Your task to perform on an android device: allow cookies in the chrome app Image 0: 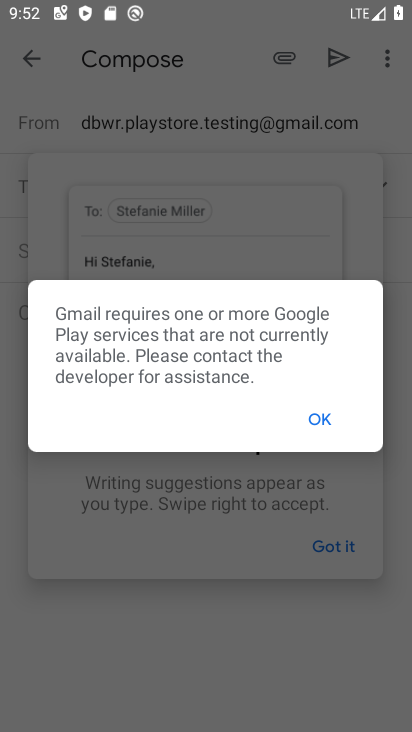
Step 0: press home button
Your task to perform on an android device: allow cookies in the chrome app Image 1: 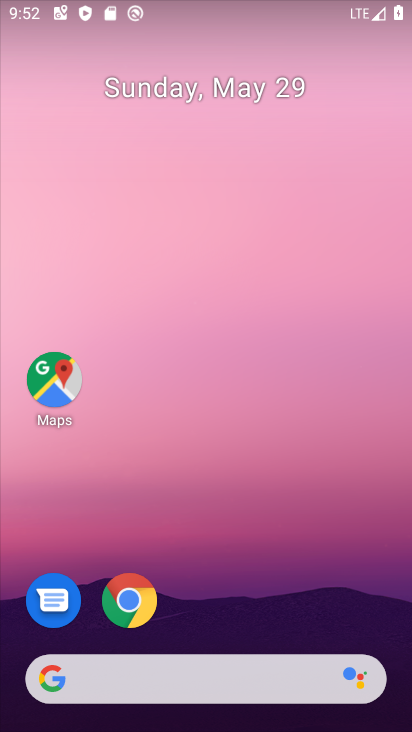
Step 1: drag from (286, 627) to (347, 123)
Your task to perform on an android device: allow cookies in the chrome app Image 2: 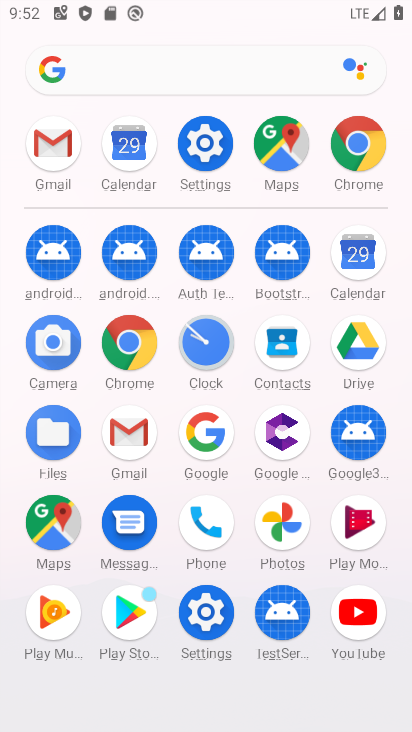
Step 2: click (131, 331)
Your task to perform on an android device: allow cookies in the chrome app Image 3: 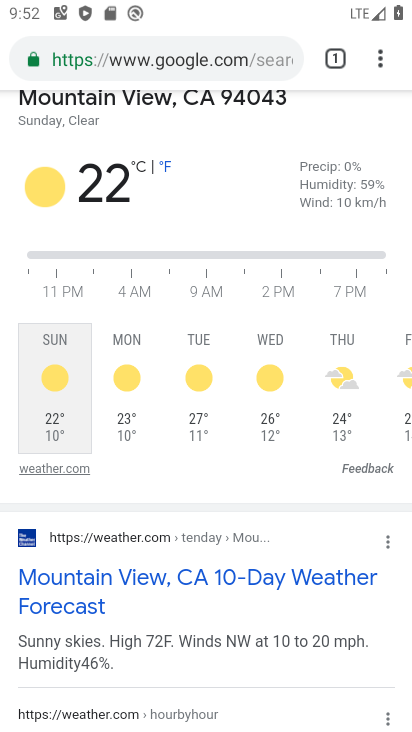
Step 3: drag from (380, 55) to (193, 640)
Your task to perform on an android device: allow cookies in the chrome app Image 4: 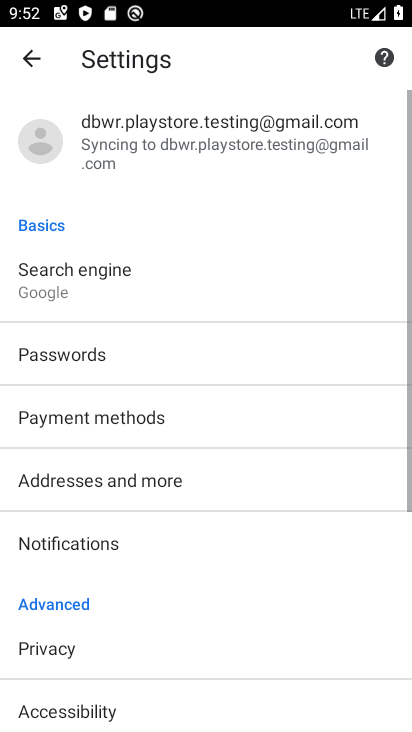
Step 4: drag from (249, 625) to (291, 199)
Your task to perform on an android device: allow cookies in the chrome app Image 5: 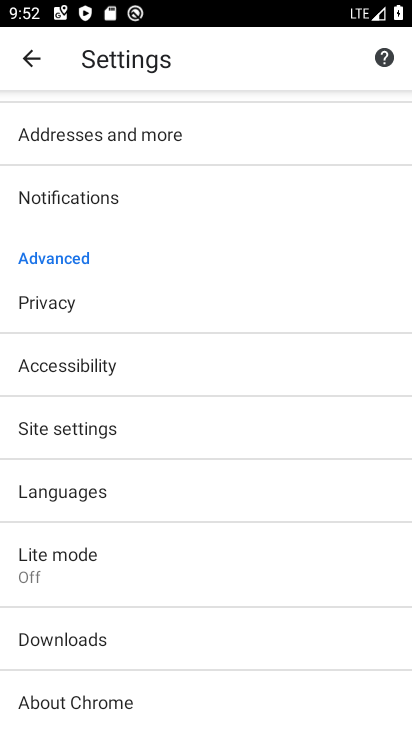
Step 5: click (89, 427)
Your task to perform on an android device: allow cookies in the chrome app Image 6: 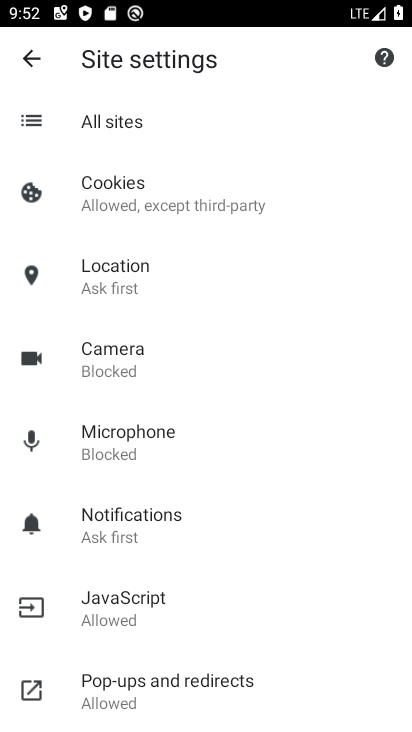
Step 6: click (149, 199)
Your task to perform on an android device: allow cookies in the chrome app Image 7: 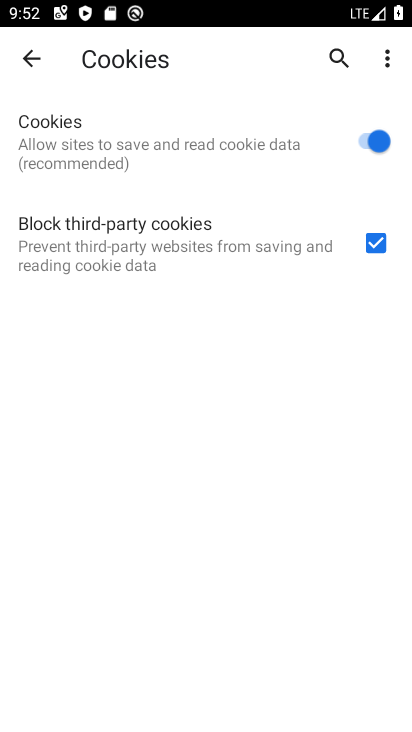
Step 7: task complete